Your task to perform on an android device: Open the calendar and show me this week's events? Image 0: 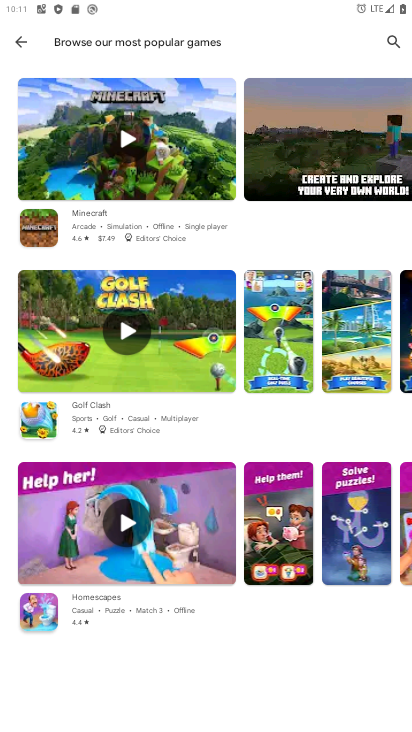
Step 0: press home button
Your task to perform on an android device: Open the calendar and show me this week's events? Image 1: 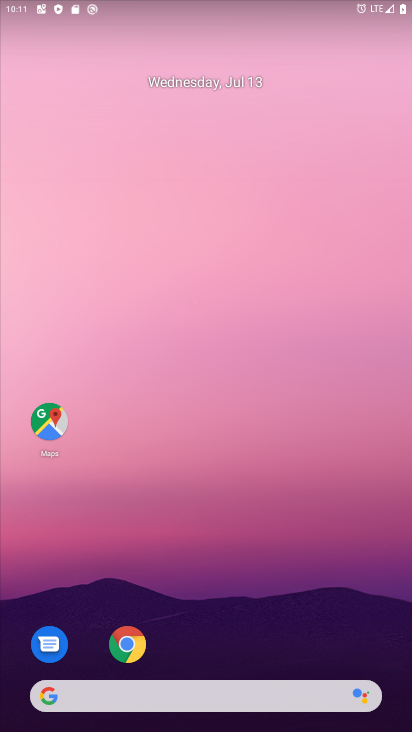
Step 1: drag from (198, 702) to (187, 242)
Your task to perform on an android device: Open the calendar and show me this week's events? Image 2: 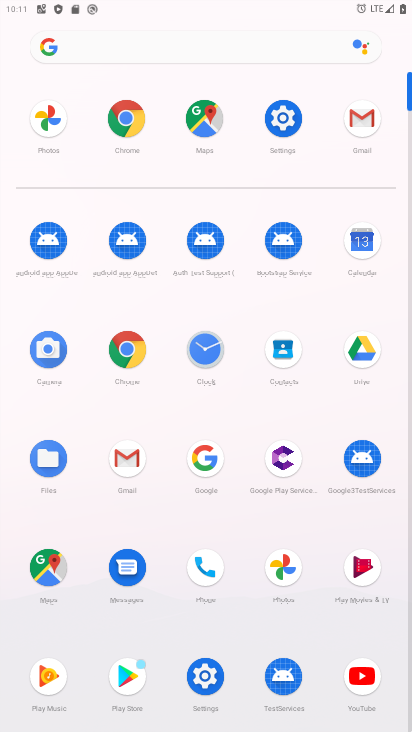
Step 2: click (359, 234)
Your task to perform on an android device: Open the calendar and show me this week's events? Image 3: 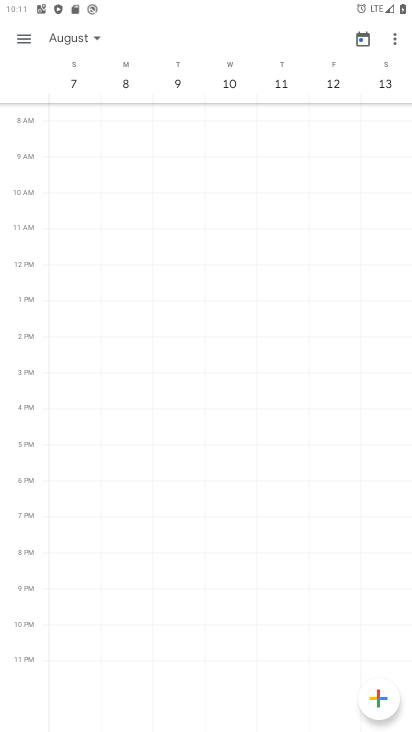
Step 3: click (20, 38)
Your task to perform on an android device: Open the calendar and show me this week's events? Image 4: 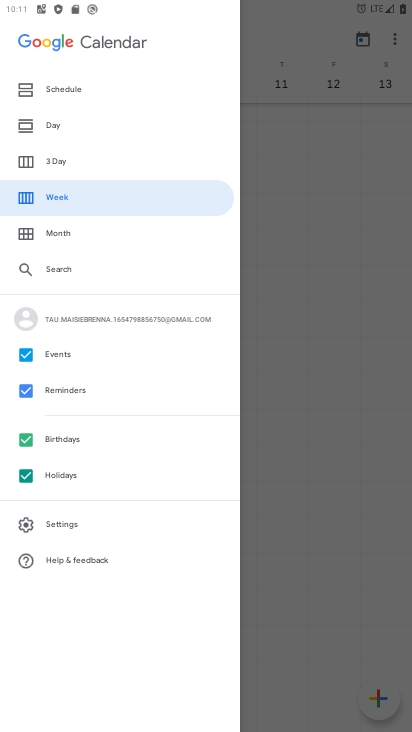
Step 4: click (25, 472)
Your task to perform on an android device: Open the calendar and show me this week's events? Image 5: 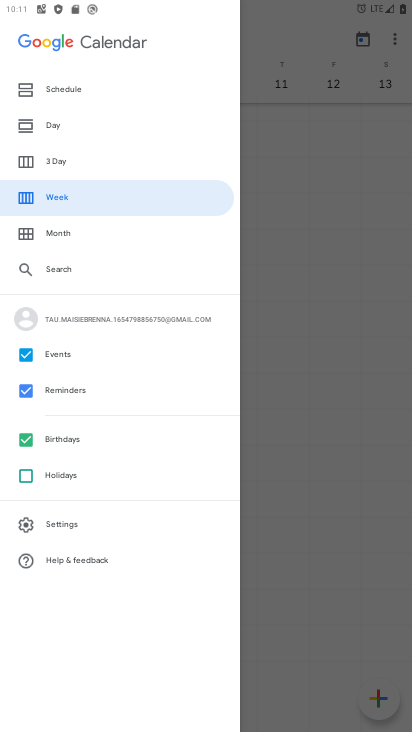
Step 5: click (27, 436)
Your task to perform on an android device: Open the calendar and show me this week's events? Image 6: 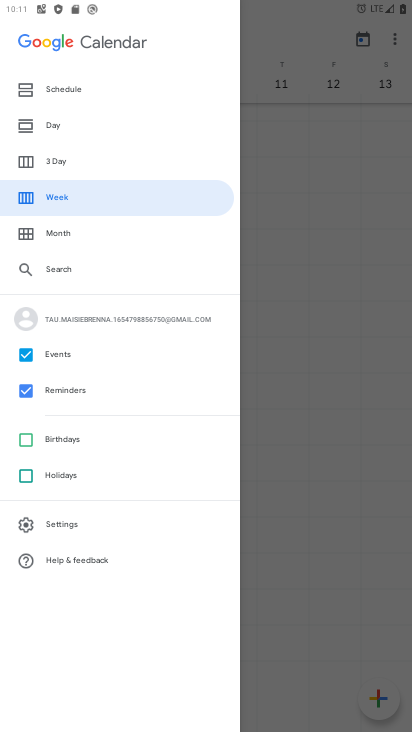
Step 6: click (24, 393)
Your task to perform on an android device: Open the calendar and show me this week's events? Image 7: 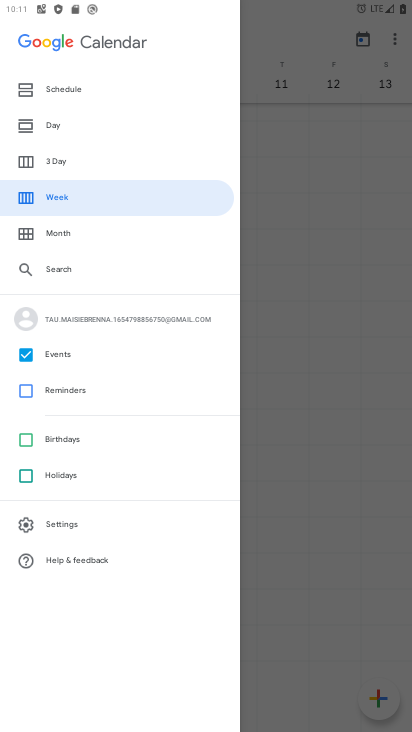
Step 7: click (106, 199)
Your task to perform on an android device: Open the calendar and show me this week's events? Image 8: 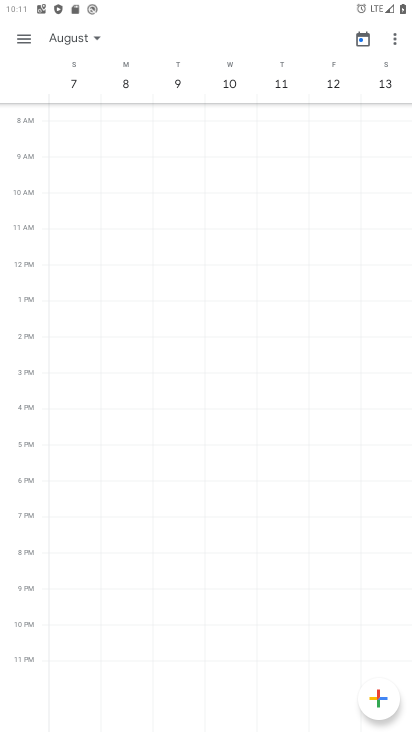
Step 8: task complete